Your task to perform on an android device: make emails show in primary in the gmail app Image 0: 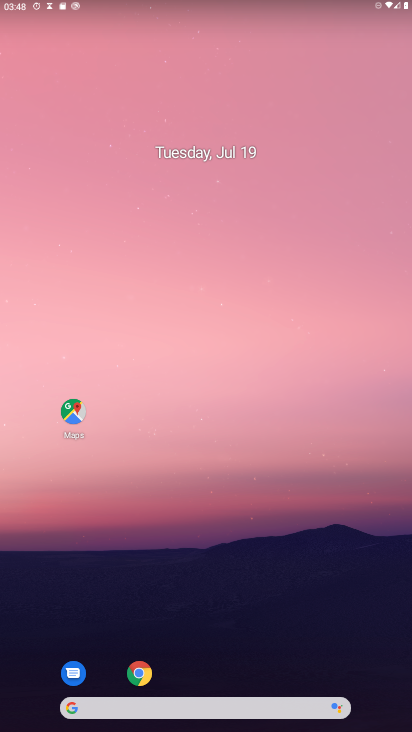
Step 0: drag from (218, 650) to (207, 6)
Your task to perform on an android device: make emails show in primary in the gmail app Image 1: 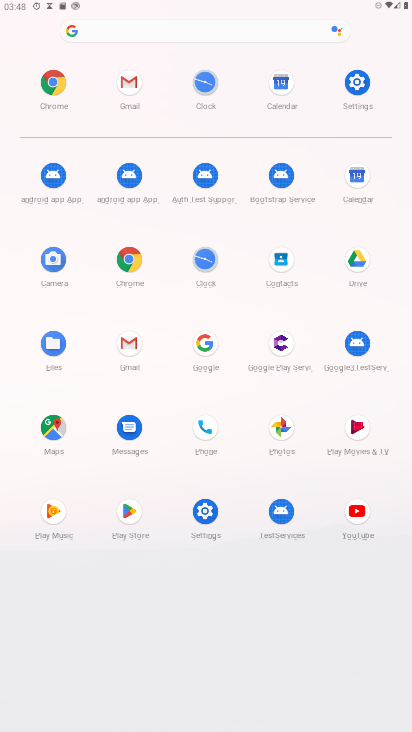
Step 1: click (127, 350)
Your task to perform on an android device: make emails show in primary in the gmail app Image 2: 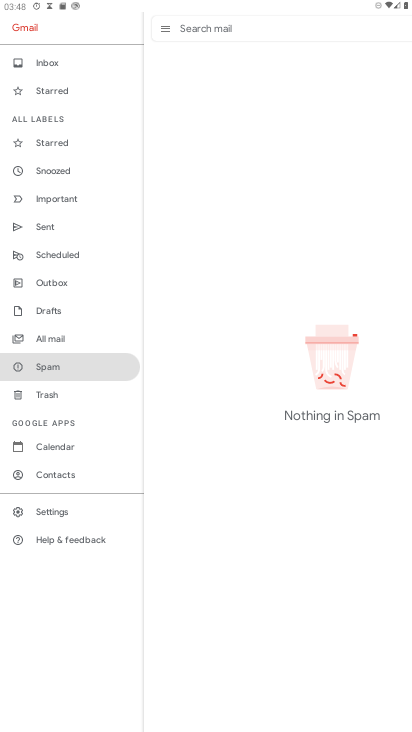
Step 2: click (64, 520)
Your task to perform on an android device: make emails show in primary in the gmail app Image 3: 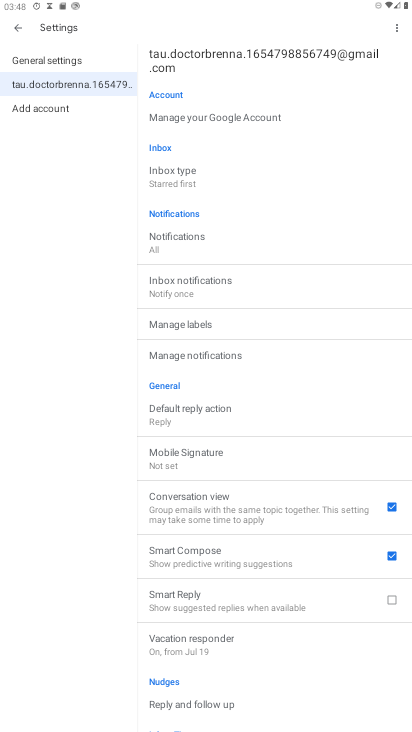
Step 3: click (196, 178)
Your task to perform on an android device: make emails show in primary in the gmail app Image 4: 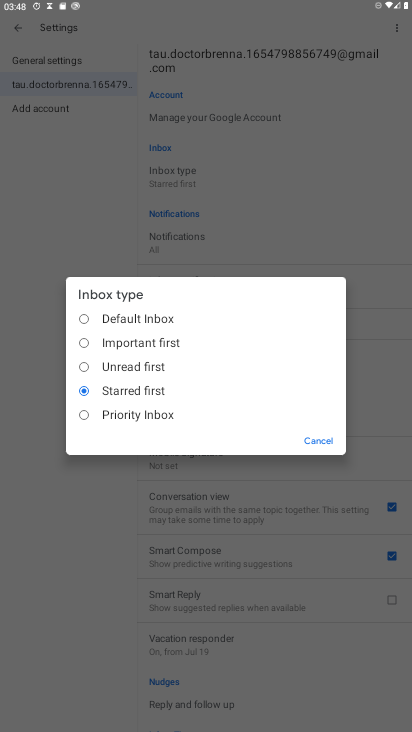
Step 4: click (124, 317)
Your task to perform on an android device: make emails show in primary in the gmail app Image 5: 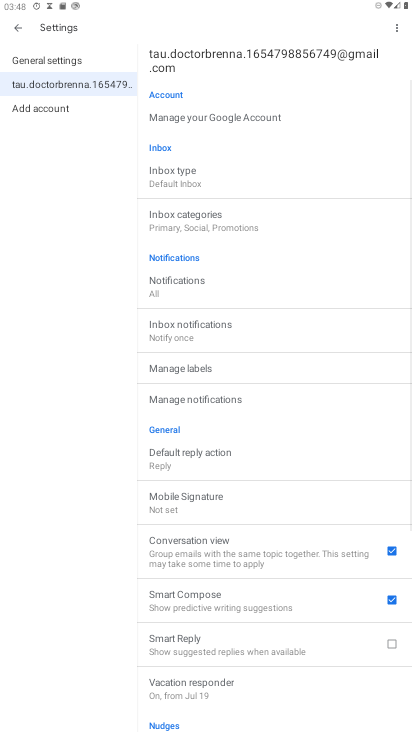
Step 5: click (214, 229)
Your task to perform on an android device: make emails show in primary in the gmail app Image 6: 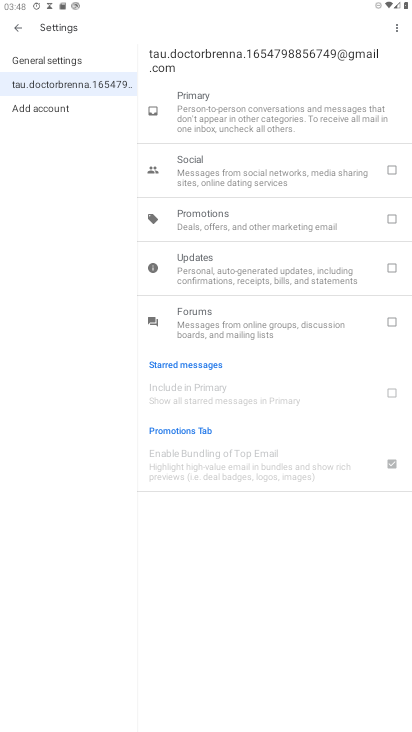
Step 6: task complete